Your task to perform on an android device: Go to Amazon Image 0: 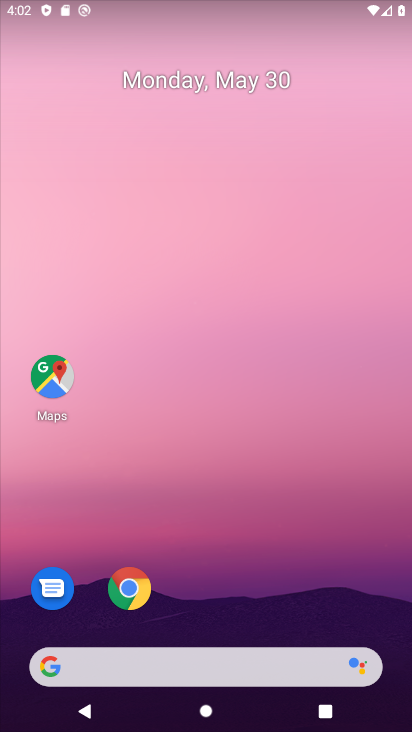
Step 0: click (107, 665)
Your task to perform on an android device: Go to Amazon Image 1: 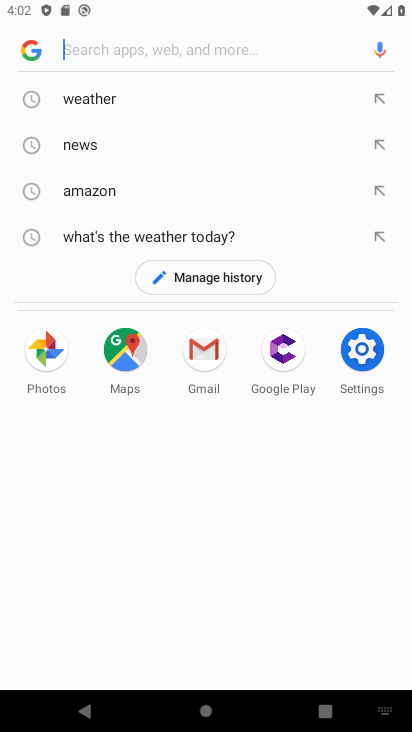
Step 1: click (87, 191)
Your task to perform on an android device: Go to Amazon Image 2: 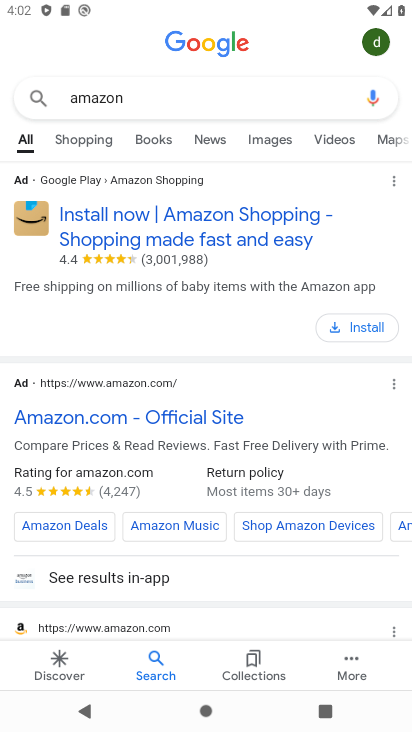
Step 2: drag from (328, 370) to (285, 140)
Your task to perform on an android device: Go to Amazon Image 3: 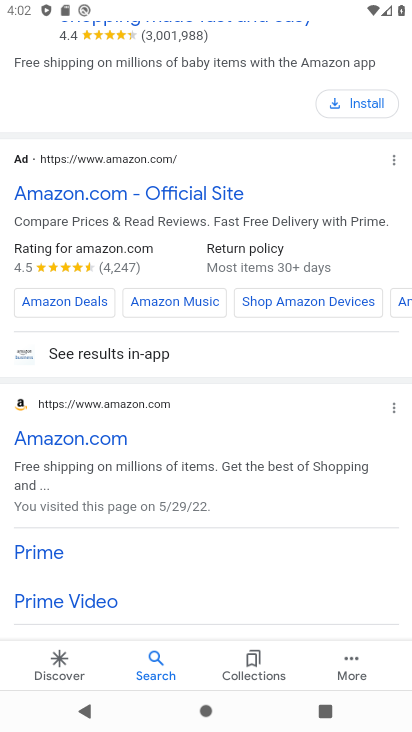
Step 3: click (79, 437)
Your task to perform on an android device: Go to Amazon Image 4: 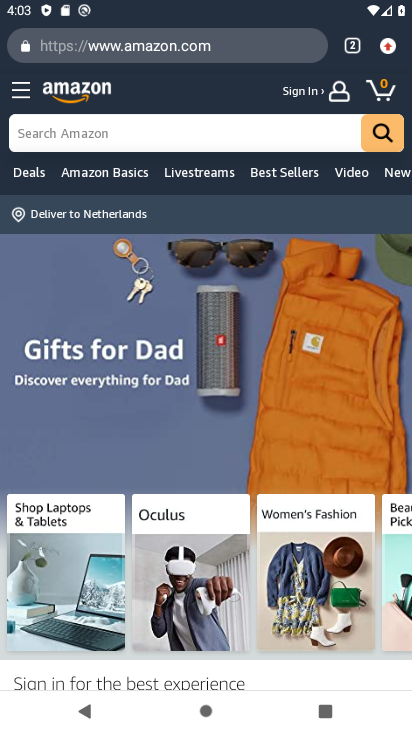
Step 4: task complete